Your task to perform on an android device: show emergency info Image 0: 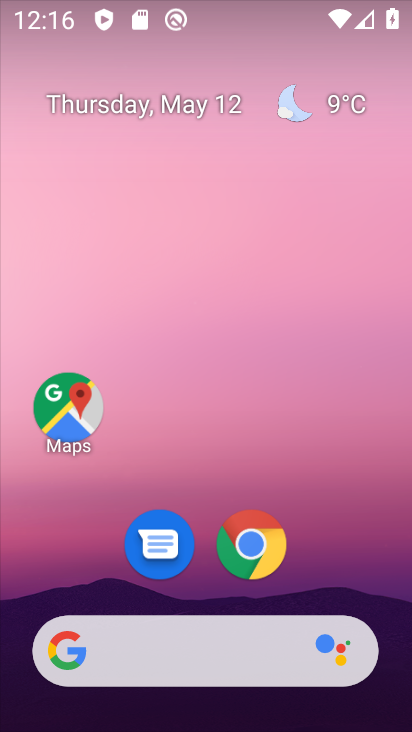
Step 0: drag from (210, 726) to (210, 242)
Your task to perform on an android device: show emergency info Image 1: 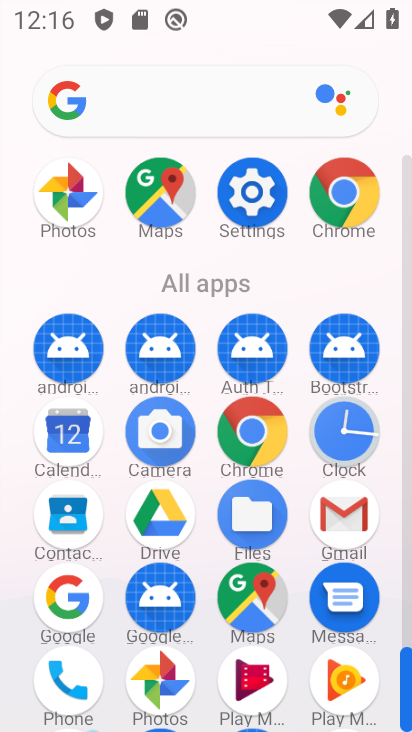
Step 1: click (245, 198)
Your task to perform on an android device: show emergency info Image 2: 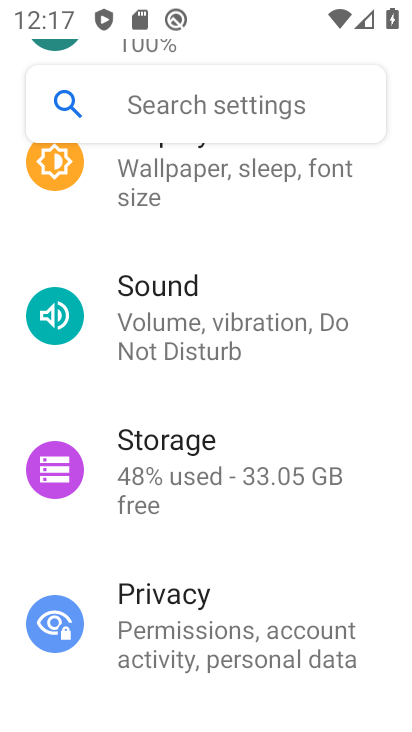
Step 2: drag from (196, 660) to (193, 125)
Your task to perform on an android device: show emergency info Image 3: 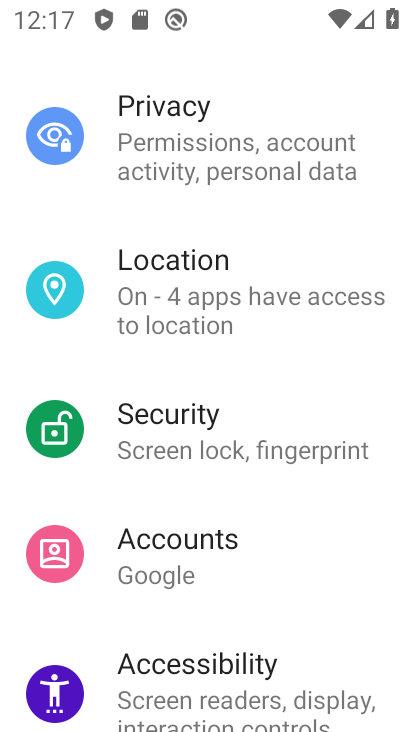
Step 3: drag from (160, 697) to (172, 335)
Your task to perform on an android device: show emergency info Image 4: 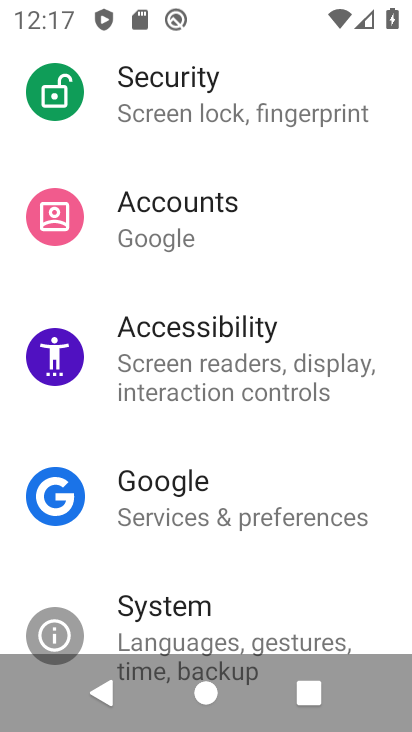
Step 4: drag from (163, 653) to (171, 339)
Your task to perform on an android device: show emergency info Image 5: 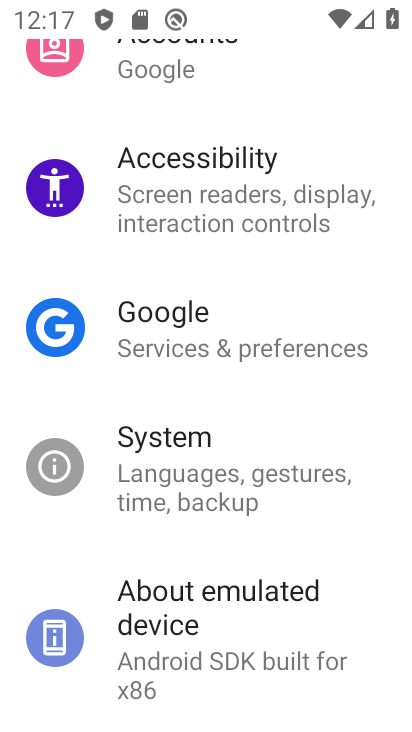
Step 5: drag from (178, 665) to (205, 224)
Your task to perform on an android device: show emergency info Image 6: 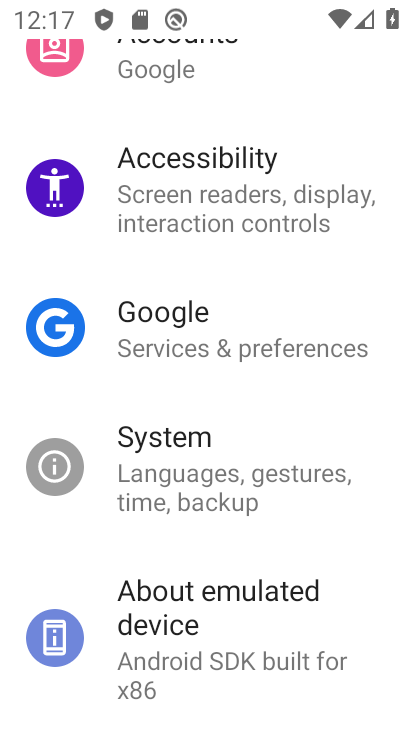
Step 6: drag from (173, 648) to (195, 222)
Your task to perform on an android device: show emergency info Image 7: 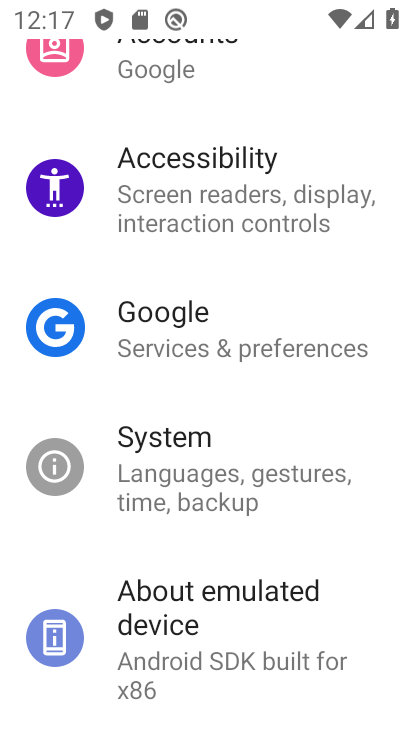
Step 7: click (181, 604)
Your task to perform on an android device: show emergency info Image 8: 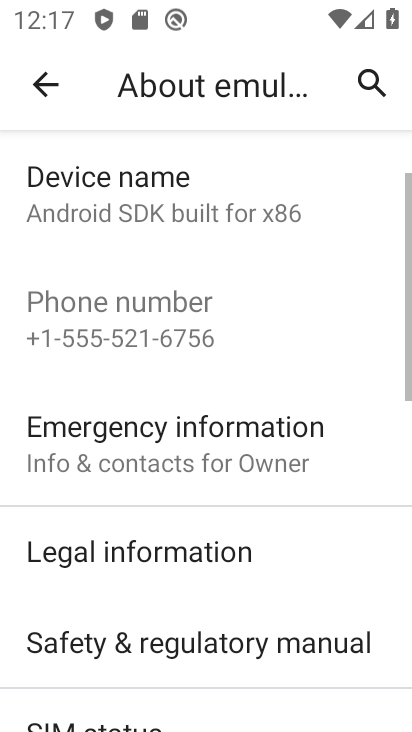
Step 8: click (150, 462)
Your task to perform on an android device: show emergency info Image 9: 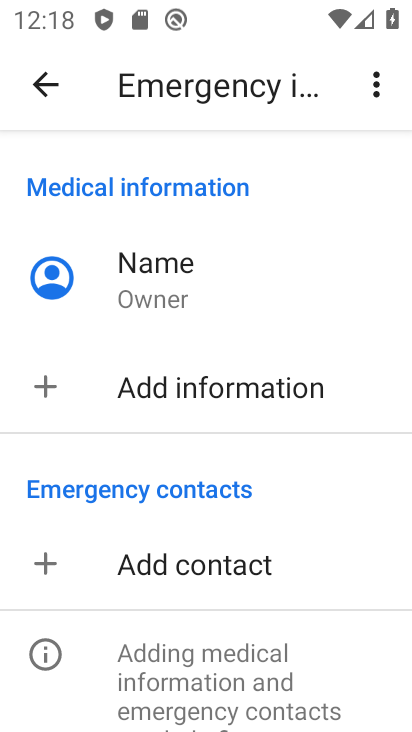
Step 9: task complete